Your task to perform on an android device: Go to settings Image 0: 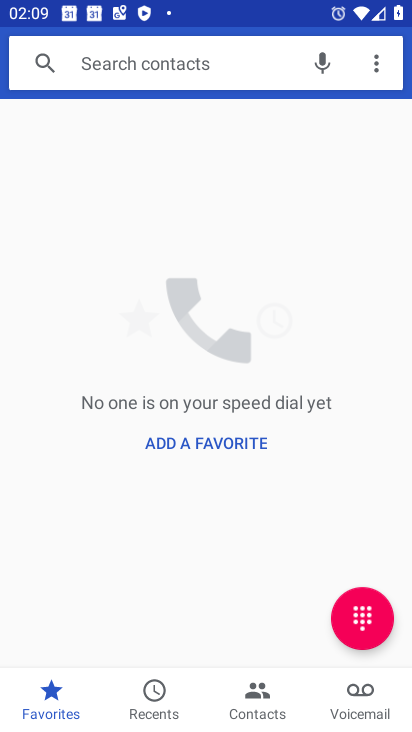
Step 0: press home button
Your task to perform on an android device: Go to settings Image 1: 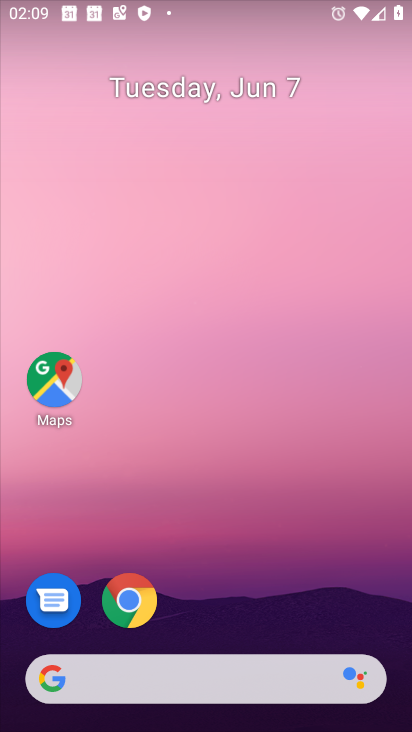
Step 1: drag from (214, 724) to (215, 160)
Your task to perform on an android device: Go to settings Image 2: 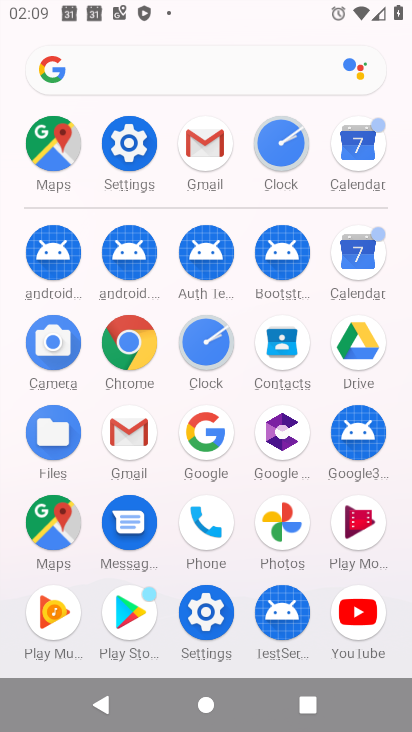
Step 2: click (118, 154)
Your task to perform on an android device: Go to settings Image 3: 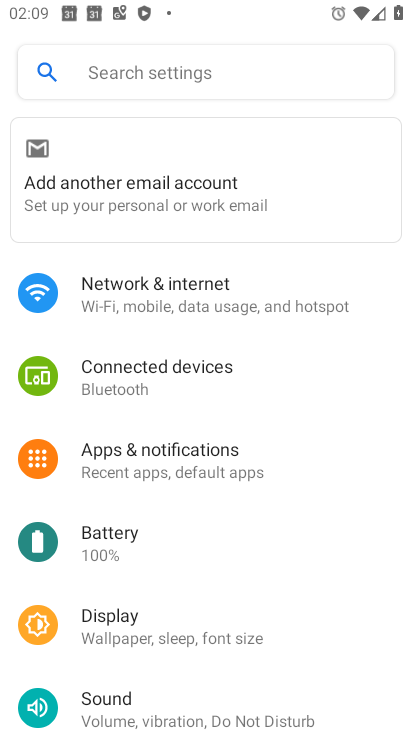
Step 3: task complete